Your task to perform on an android device: allow notifications from all sites in the chrome app Image 0: 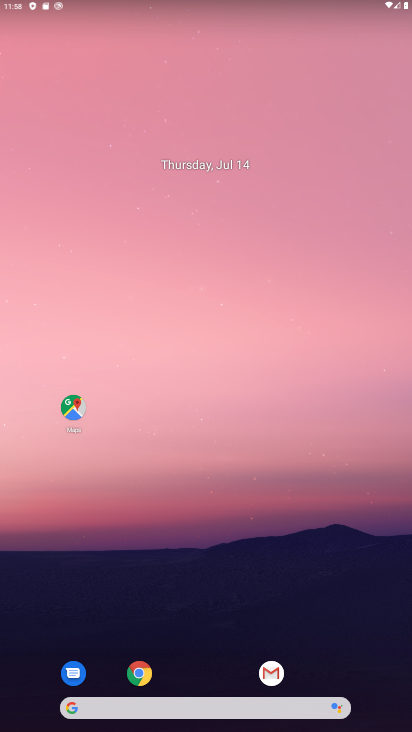
Step 0: click (134, 662)
Your task to perform on an android device: allow notifications from all sites in the chrome app Image 1: 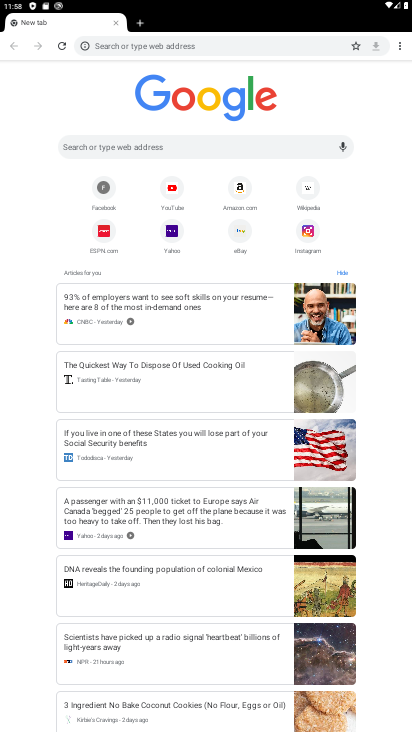
Step 1: click (394, 49)
Your task to perform on an android device: allow notifications from all sites in the chrome app Image 2: 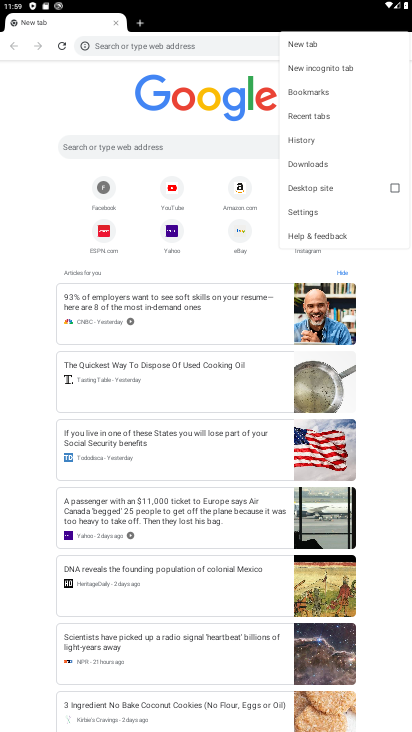
Step 2: click (307, 211)
Your task to perform on an android device: allow notifications from all sites in the chrome app Image 3: 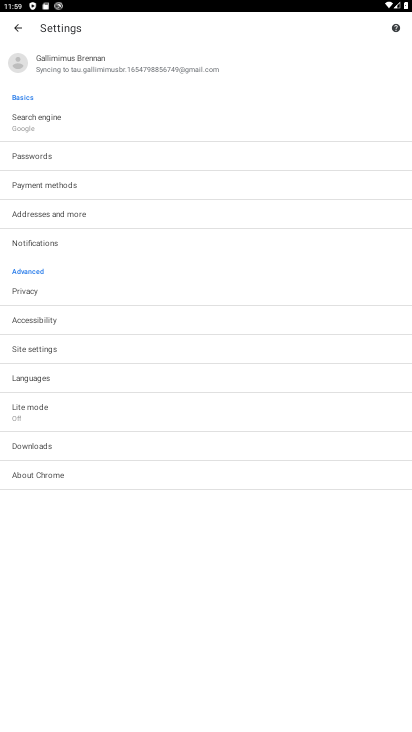
Step 3: click (55, 348)
Your task to perform on an android device: allow notifications from all sites in the chrome app Image 4: 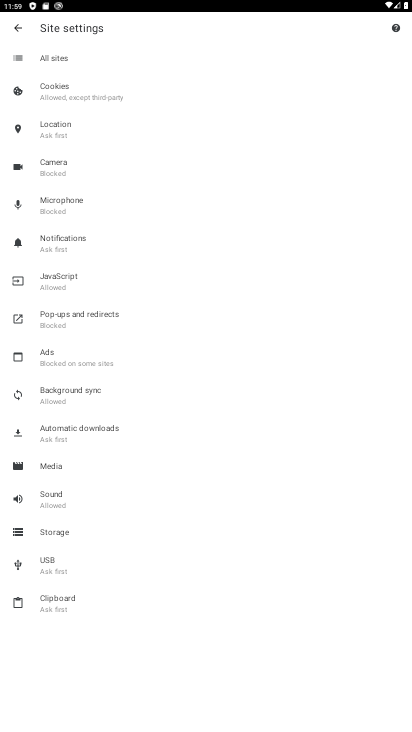
Step 4: click (71, 235)
Your task to perform on an android device: allow notifications from all sites in the chrome app Image 5: 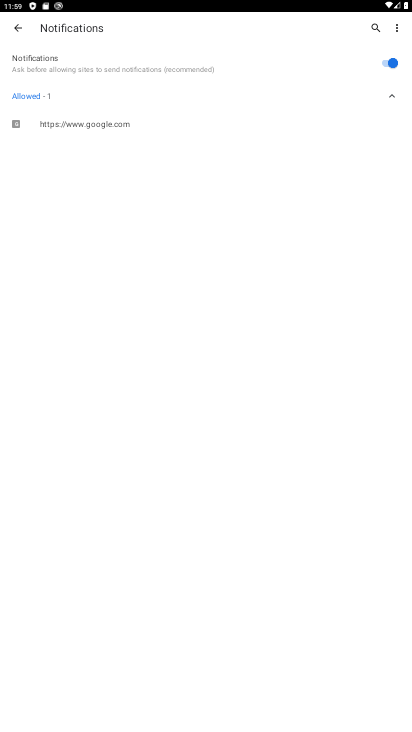
Step 5: task complete